Your task to perform on an android device: Open my contact list Image 0: 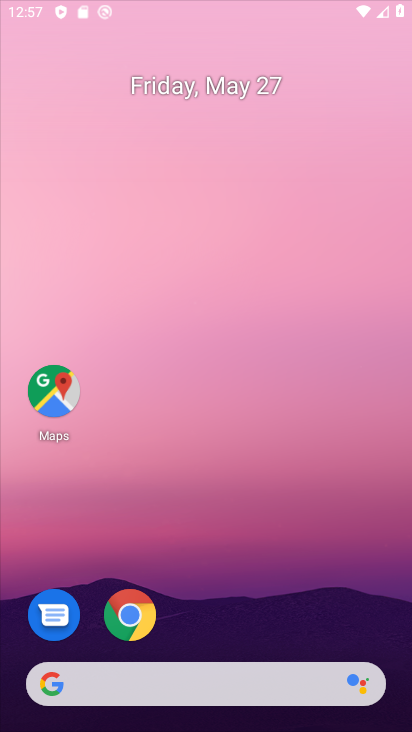
Step 0: press home button
Your task to perform on an android device: Open my contact list Image 1: 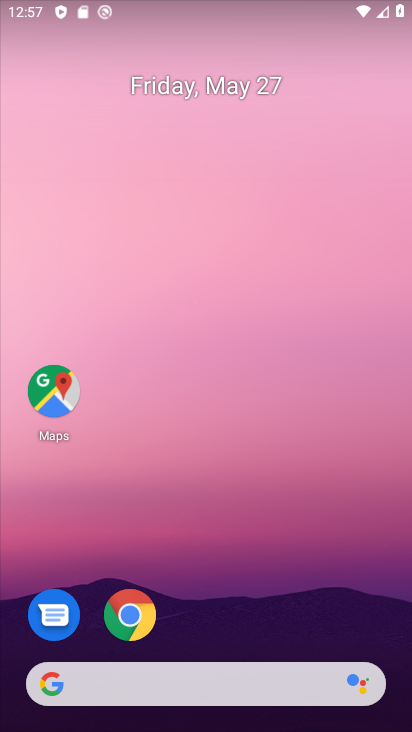
Step 1: drag from (234, 641) to (259, 174)
Your task to perform on an android device: Open my contact list Image 2: 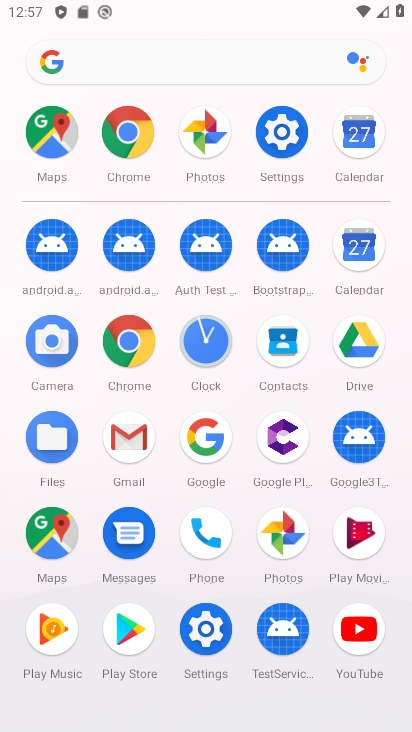
Step 2: click (273, 344)
Your task to perform on an android device: Open my contact list Image 3: 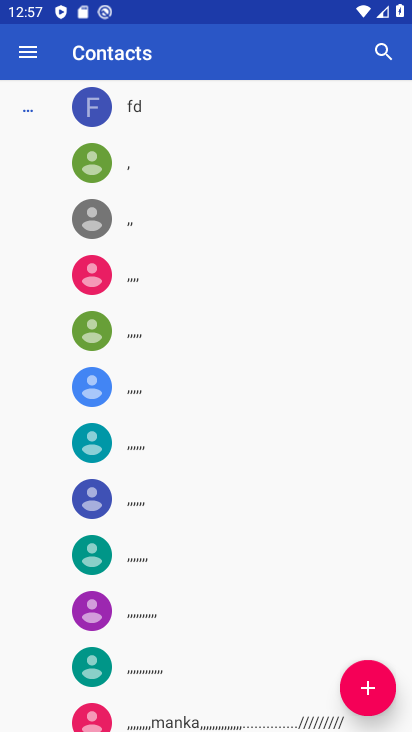
Step 3: task complete